Your task to perform on an android device: add a contact in the contacts app Image 0: 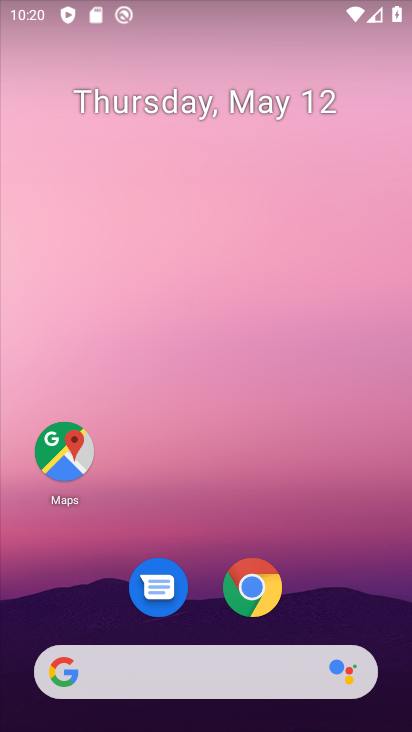
Step 0: drag from (329, 544) to (345, 114)
Your task to perform on an android device: add a contact in the contacts app Image 1: 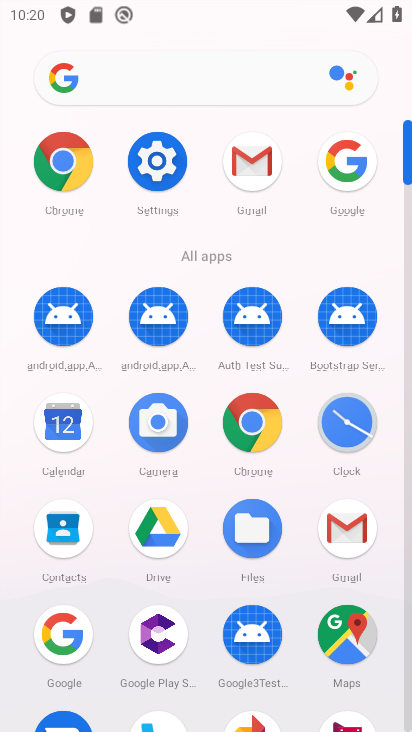
Step 1: drag from (378, 554) to (391, 151)
Your task to perform on an android device: add a contact in the contacts app Image 2: 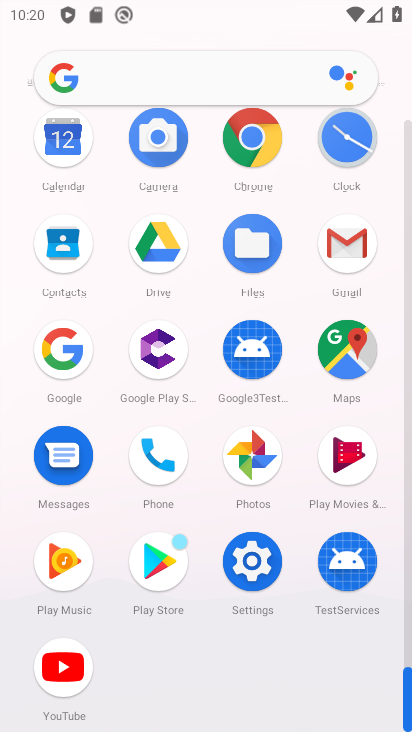
Step 2: click (143, 467)
Your task to perform on an android device: add a contact in the contacts app Image 3: 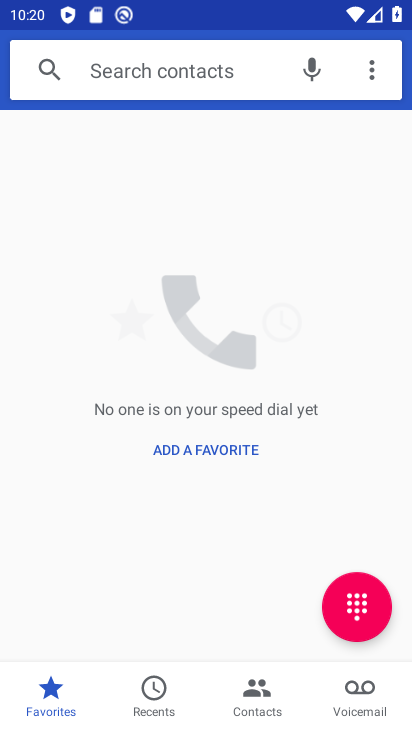
Step 3: click (258, 685)
Your task to perform on an android device: add a contact in the contacts app Image 4: 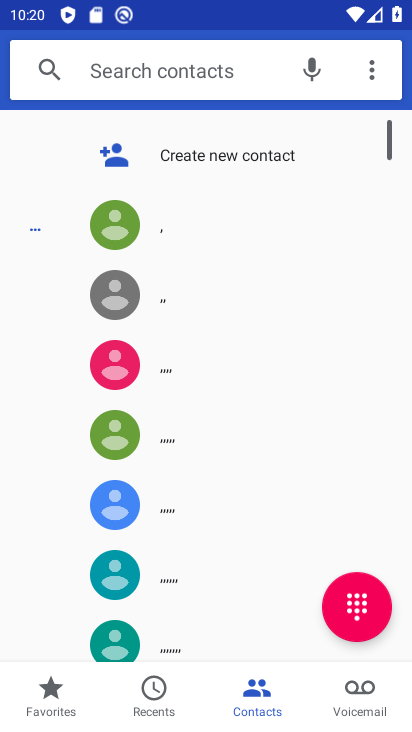
Step 4: click (184, 159)
Your task to perform on an android device: add a contact in the contacts app Image 5: 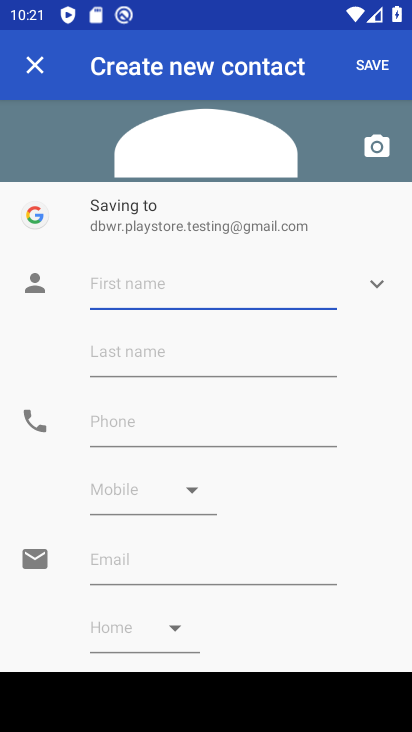
Step 5: type "ttyy"
Your task to perform on an android device: add a contact in the contacts app Image 6: 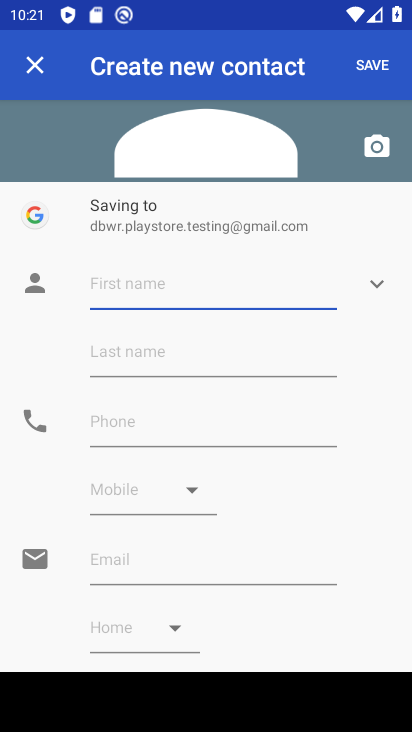
Step 6: click (174, 414)
Your task to perform on an android device: add a contact in the contacts app Image 7: 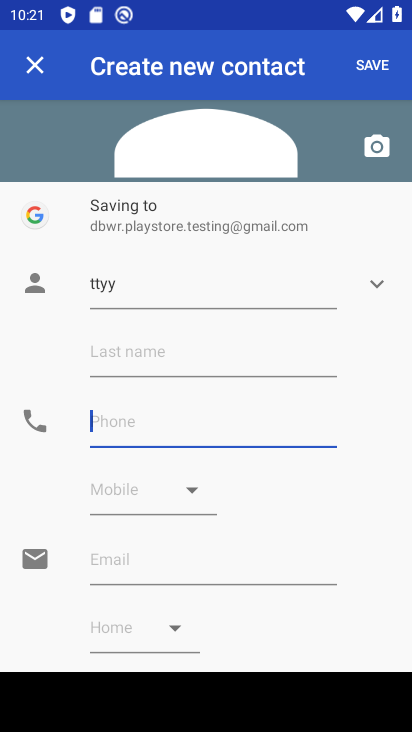
Step 7: type "53636633"
Your task to perform on an android device: add a contact in the contacts app Image 8: 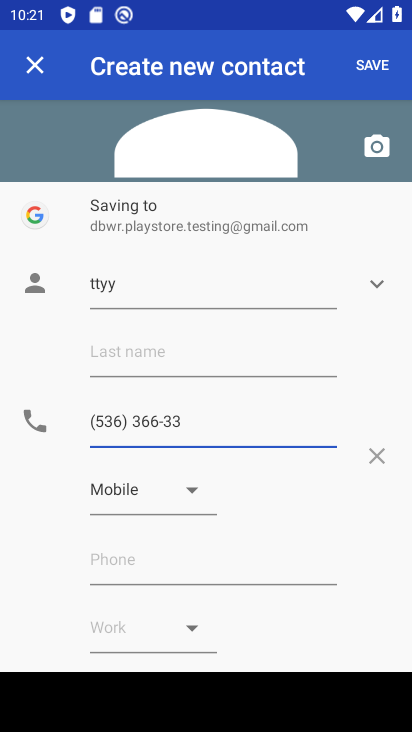
Step 8: click (381, 64)
Your task to perform on an android device: add a contact in the contacts app Image 9: 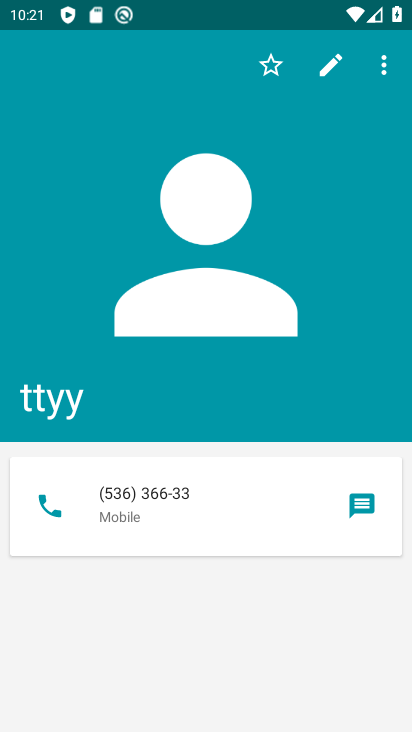
Step 9: task complete